Your task to perform on an android device: turn on javascript in the chrome app Image 0: 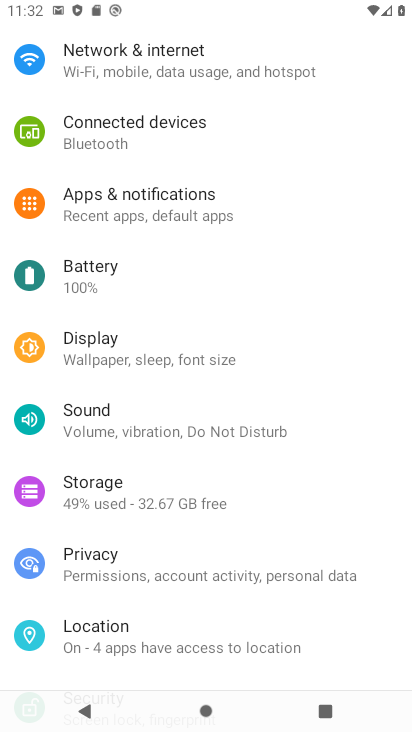
Step 0: press home button
Your task to perform on an android device: turn on javascript in the chrome app Image 1: 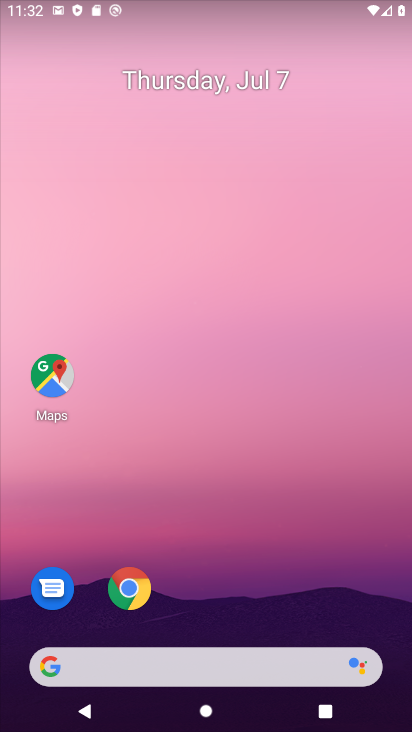
Step 1: click (245, 31)
Your task to perform on an android device: turn on javascript in the chrome app Image 2: 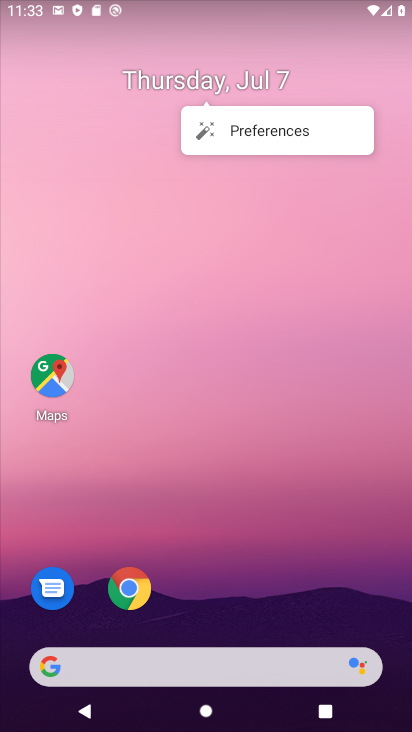
Step 2: click (123, 589)
Your task to perform on an android device: turn on javascript in the chrome app Image 3: 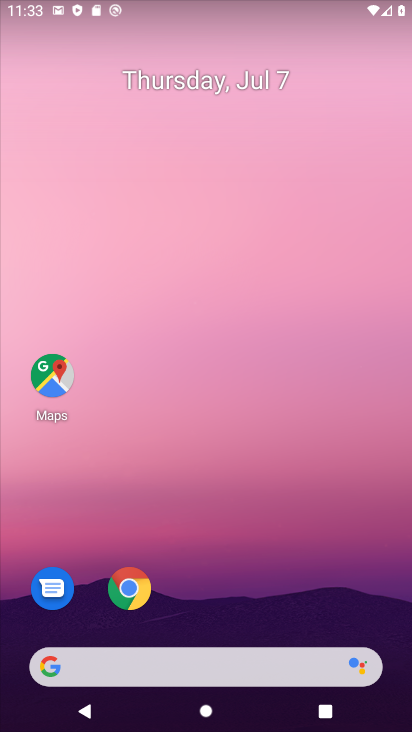
Step 3: click (128, 589)
Your task to perform on an android device: turn on javascript in the chrome app Image 4: 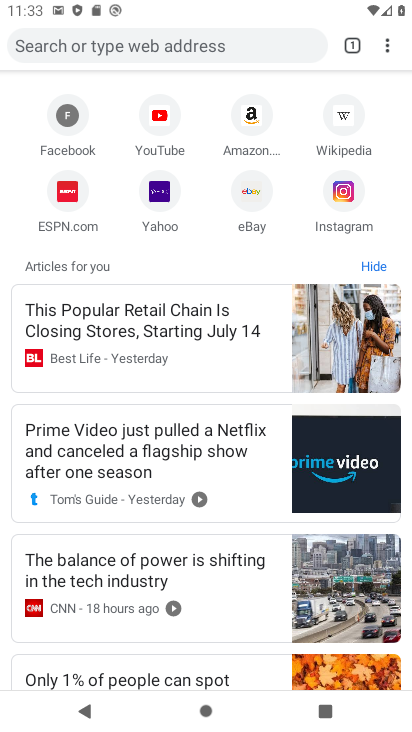
Step 4: click (389, 44)
Your task to perform on an android device: turn on javascript in the chrome app Image 5: 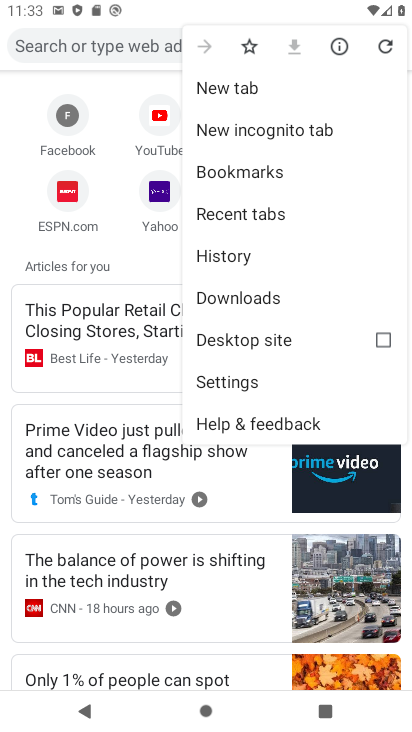
Step 5: click (248, 381)
Your task to perform on an android device: turn on javascript in the chrome app Image 6: 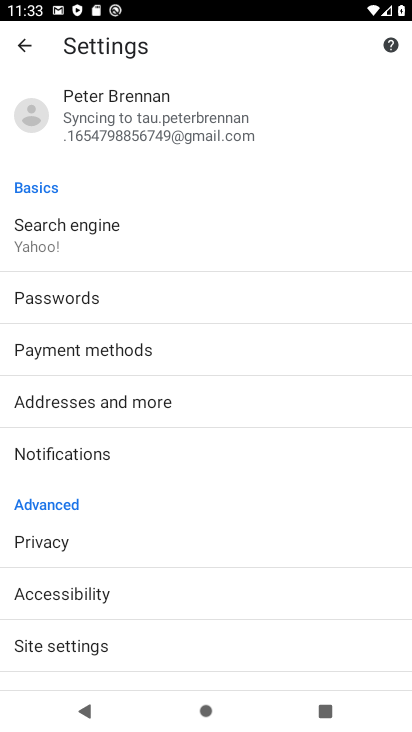
Step 6: click (74, 653)
Your task to perform on an android device: turn on javascript in the chrome app Image 7: 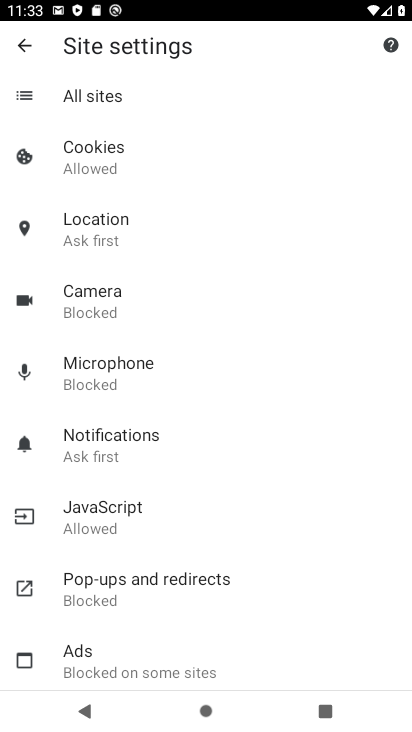
Step 7: click (126, 515)
Your task to perform on an android device: turn on javascript in the chrome app Image 8: 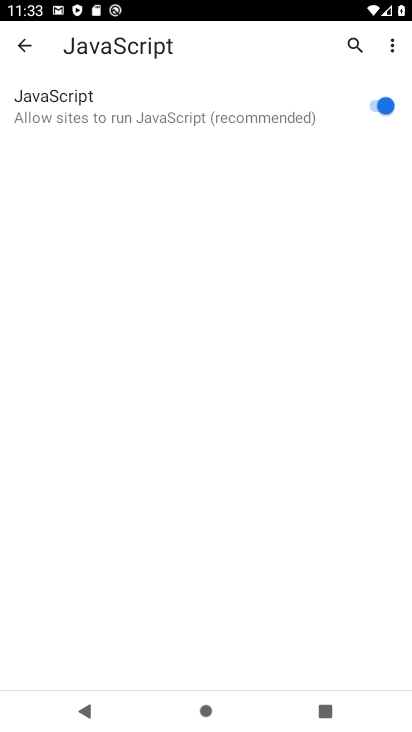
Step 8: task complete